Your task to perform on an android device: What's on my calendar tomorrow? Image 0: 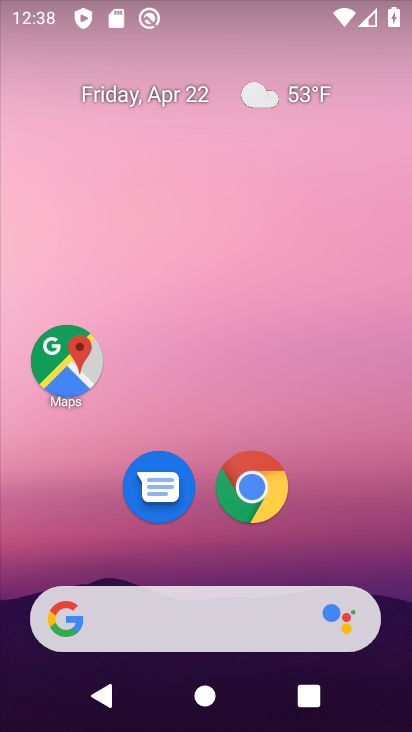
Step 0: click (187, 88)
Your task to perform on an android device: What's on my calendar tomorrow? Image 1: 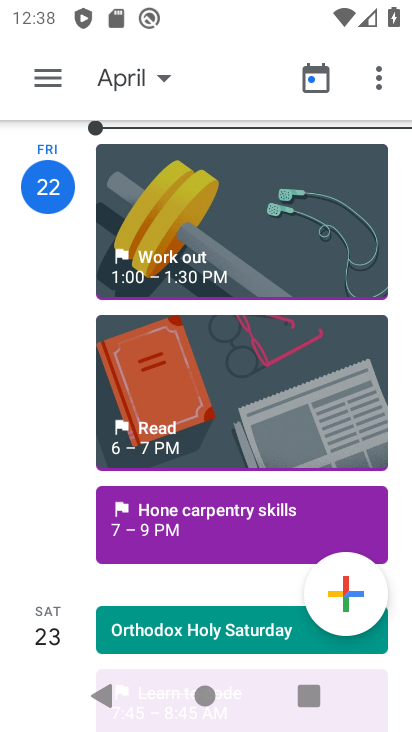
Step 1: click (180, 88)
Your task to perform on an android device: What's on my calendar tomorrow? Image 2: 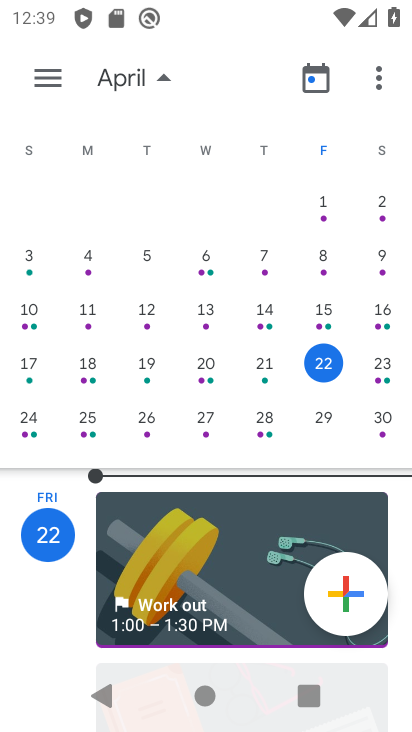
Step 2: click (383, 378)
Your task to perform on an android device: What's on my calendar tomorrow? Image 3: 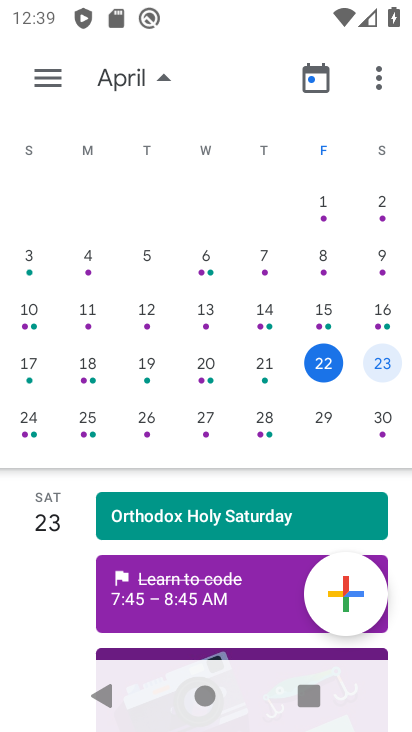
Step 3: click (383, 378)
Your task to perform on an android device: What's on my calendar tomorrow? Image 4: 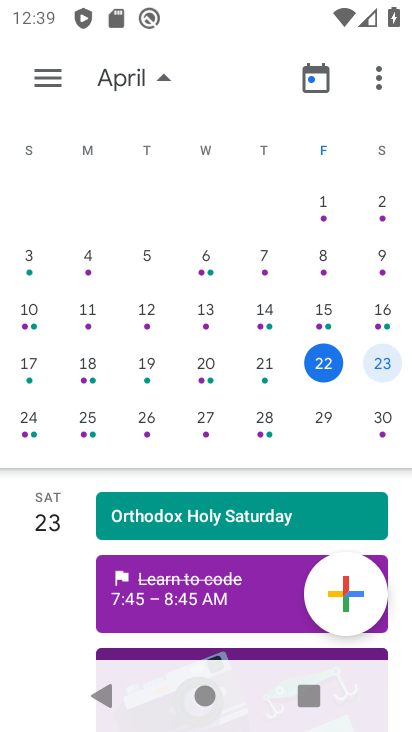
Step 4: click (165, 584)
Your task to perform on an android device: What's on my calendar tomorrow? Image 5: 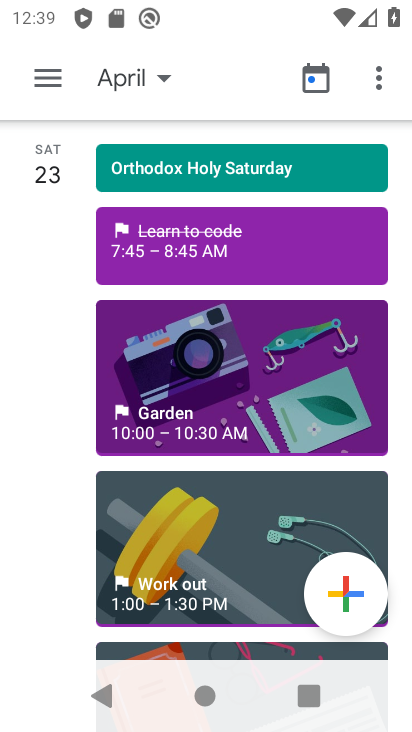
Step 5: task complete